Your task to perform on an android device: Open Reddit.com Image 0: 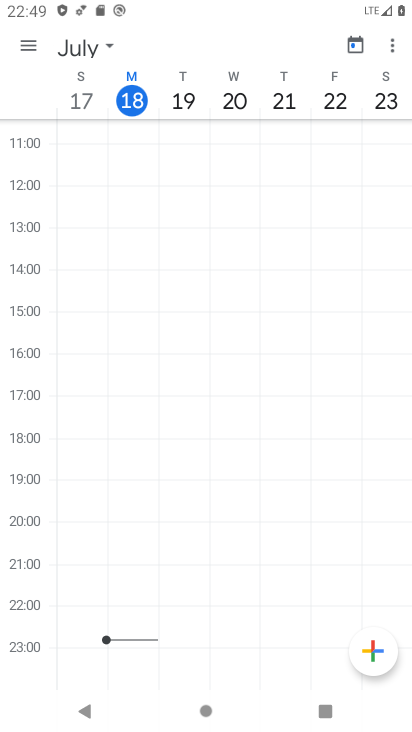
Step 0: press home button
Your task to perform on an android device: Open Reddit.com Image 1: 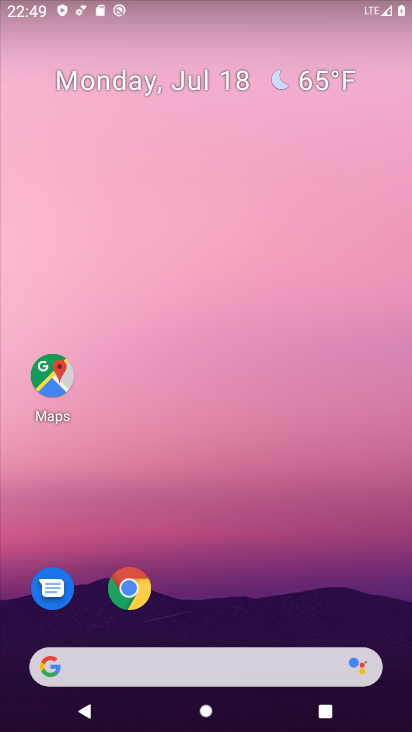
Step 1: click (45, 666)
Your task to perform on an android device: Open Reddit.com Image 2: 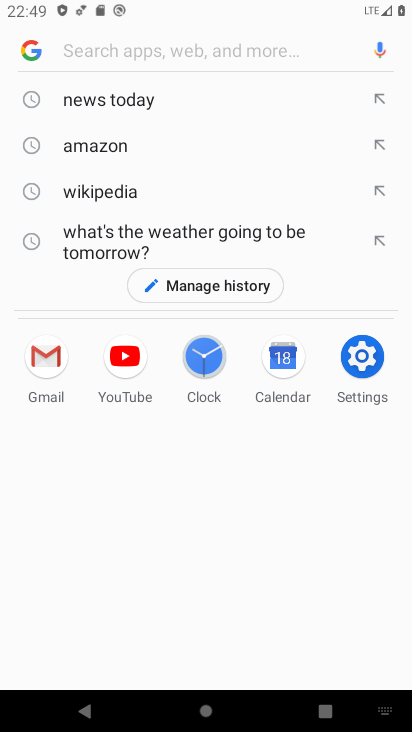
Step 2: type "Reddit.com"
Your task to perform on an android device: Open Reddit.com Image 3: 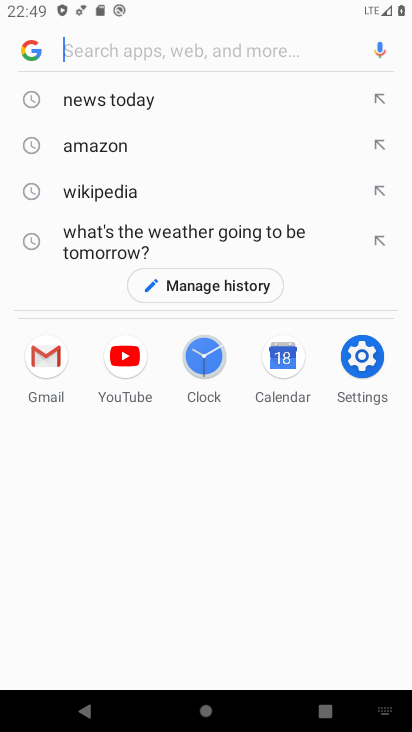
Step 3: click (129, 46)
Your task to perform on an android device: Open Reddit.com Image 4: 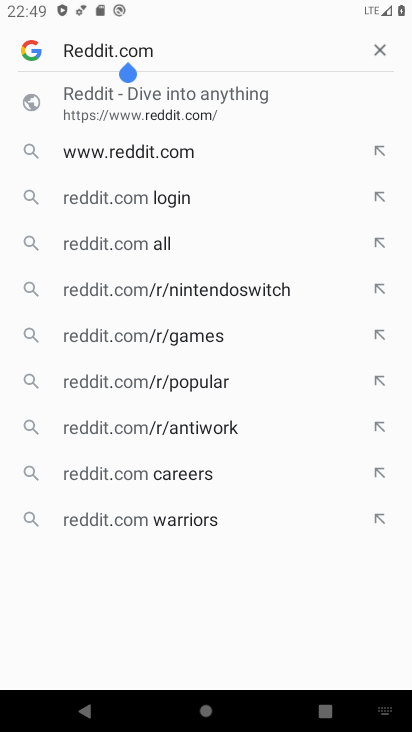
Step 4: press enter
Your task to perform on an android device: Open Reddit.com Image 5: 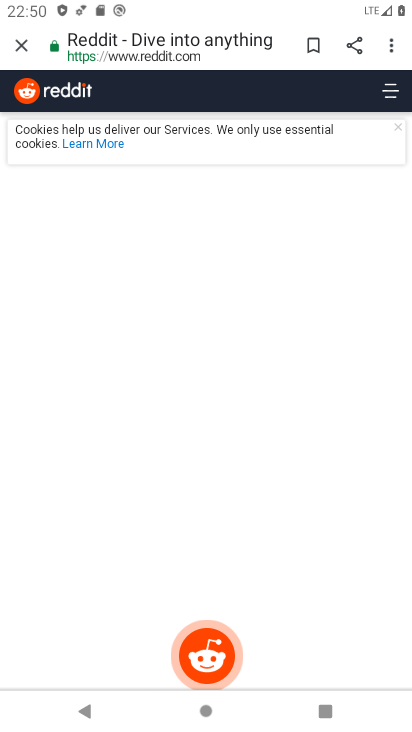
Step 5: task complete